Your task to perform on an android device: Go to Google Image 0: 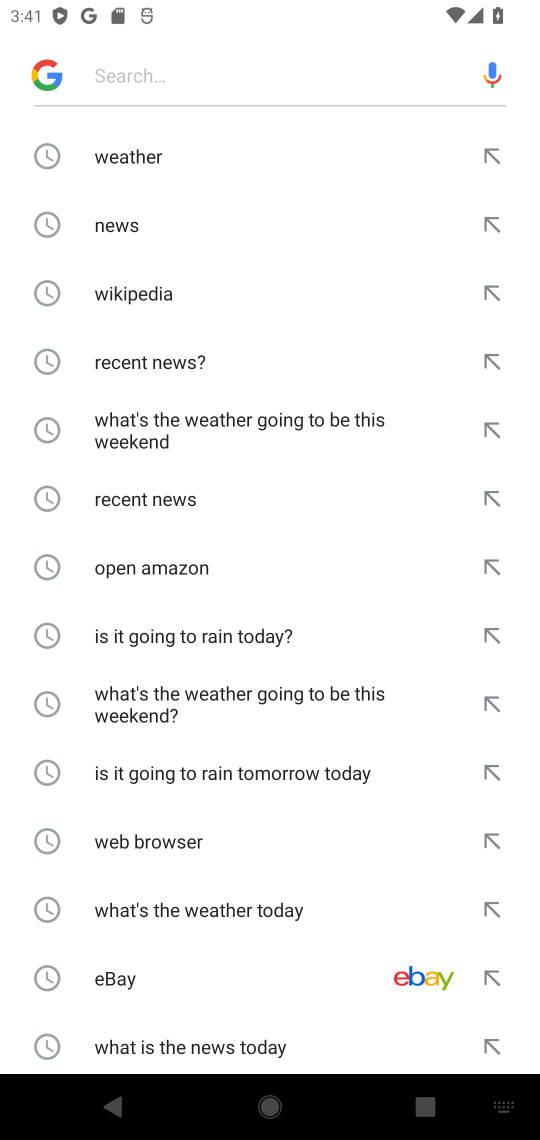
Step 0: press home button
Your task to perform on an android device: Go to Google Image 1: 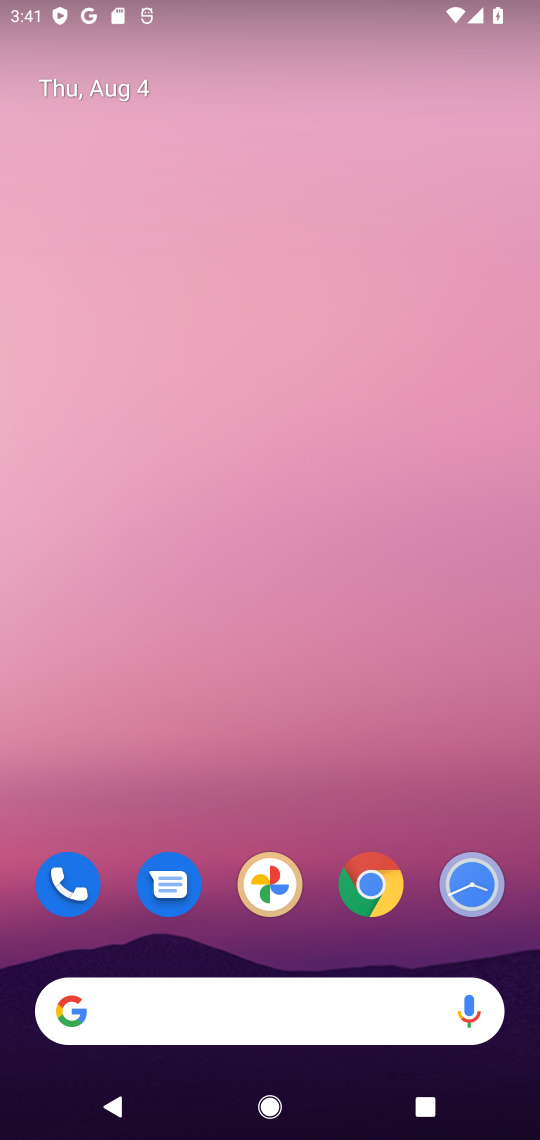
Step 1: drag from (222, 994) to (319, 83)
Your task to perform on an android device: Go to Google Image 2: 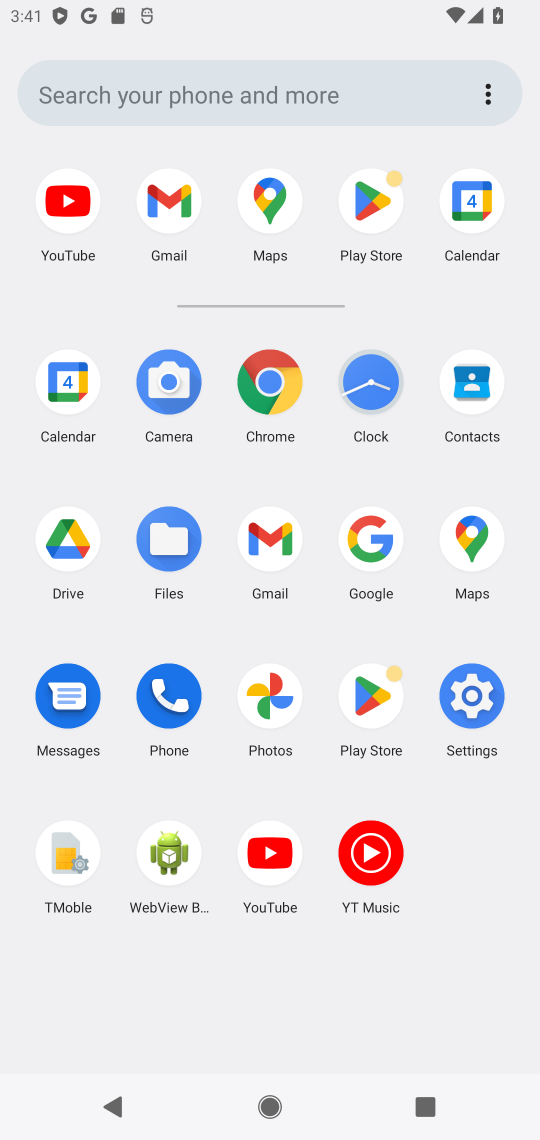
Step 2: click (360, 702)
Your task to perform on an android device: Go to Google Image 3: 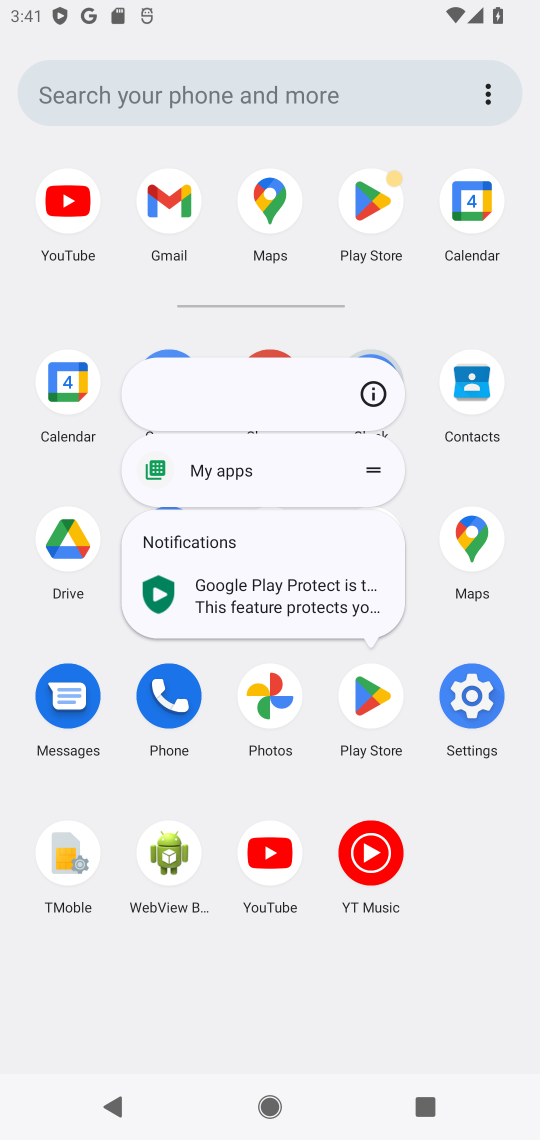
Step 3: click (462, 944)
Your task to perform on an android device: Go to Google Image 4: 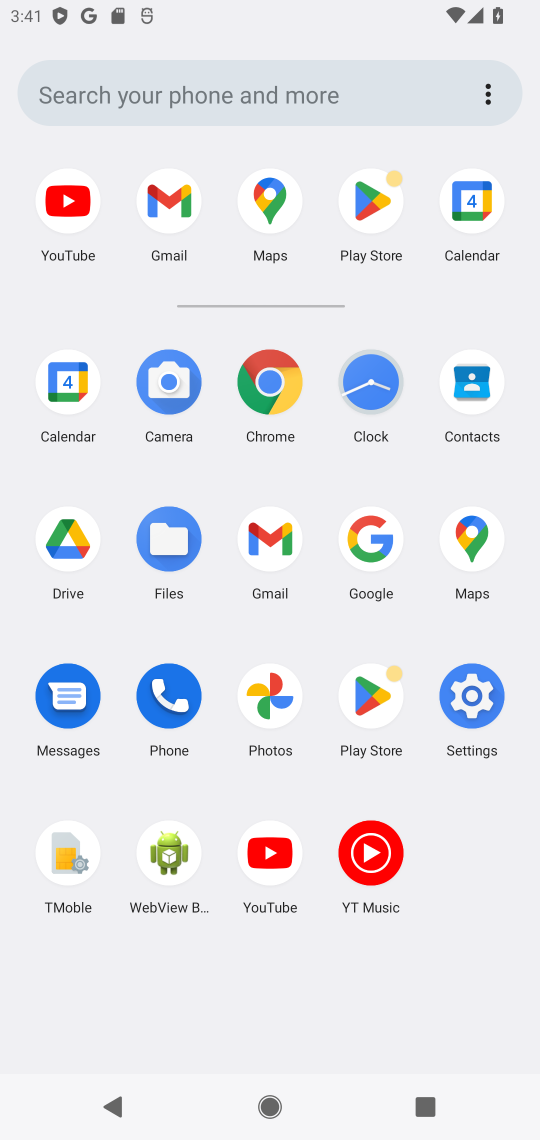
Step 4: click (360, 530)
Your task to perform on an android device: Go to Google Image 5: 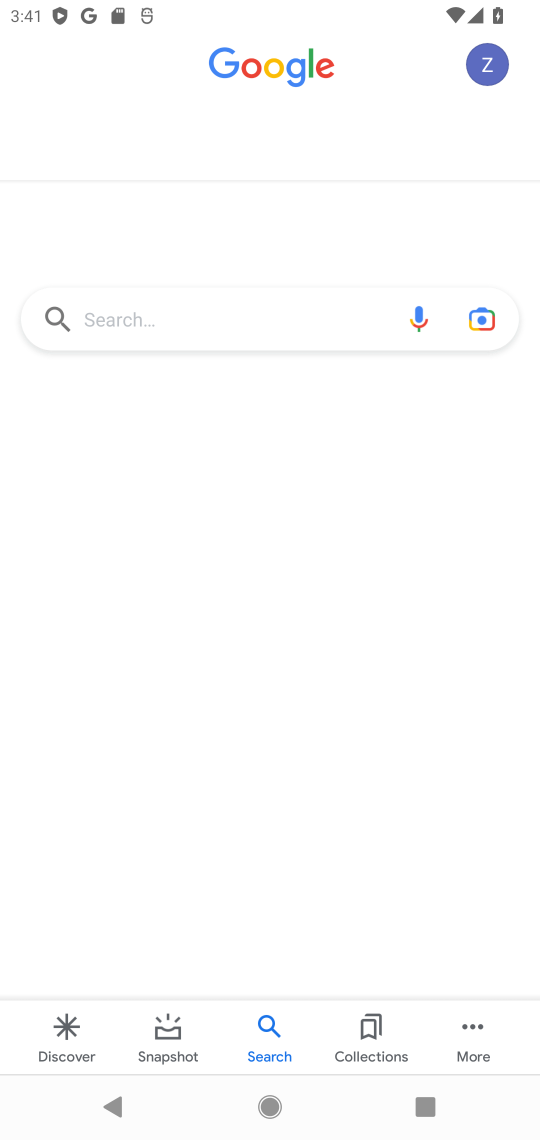
Step 5: task complete